Your task to perform on an android device: Open privacy settings Image 0: 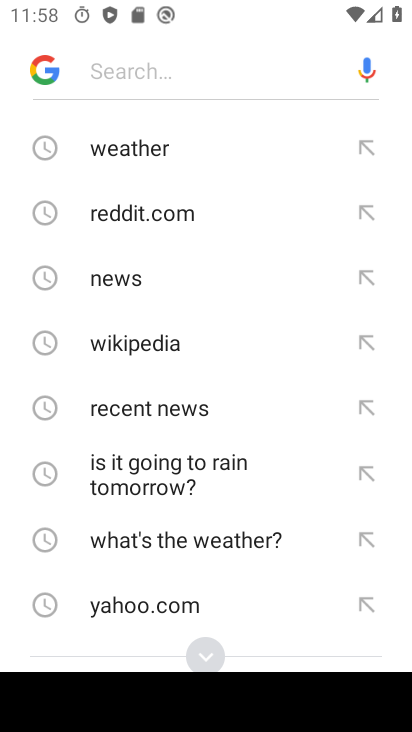
Step 0: press home button
Your task to perform on an android device: Open privacy settings Image 1: 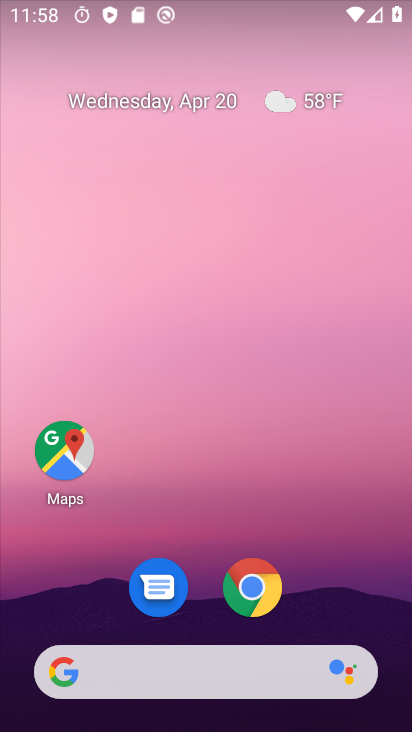
Step 1: drag from (204, 598) to (276, 0)
Your task to perform on an android device: Open privacy settings Image 2: 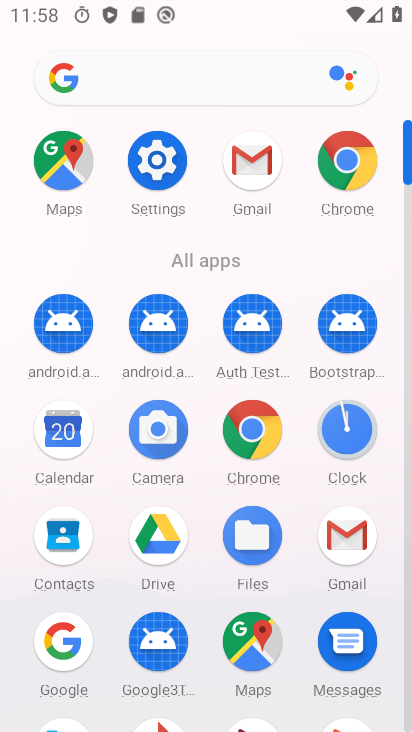
Step 2: click (161, 161)
Your task to perform on an android device: Open privacy settings Image 3: 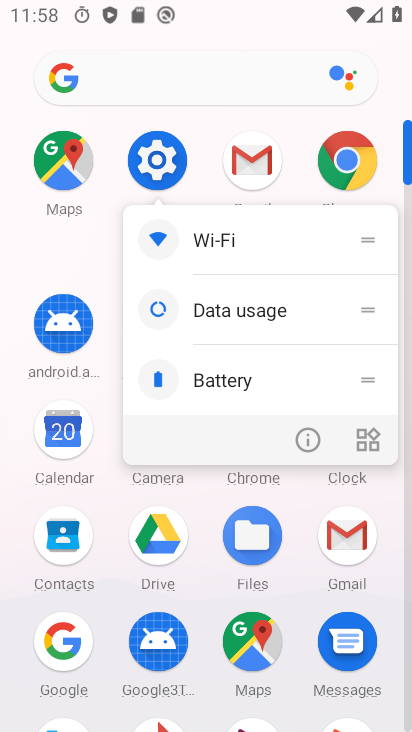
Step 3: click (167, 176)
Your task to perform on an android device: Open privacy settings Image 4: 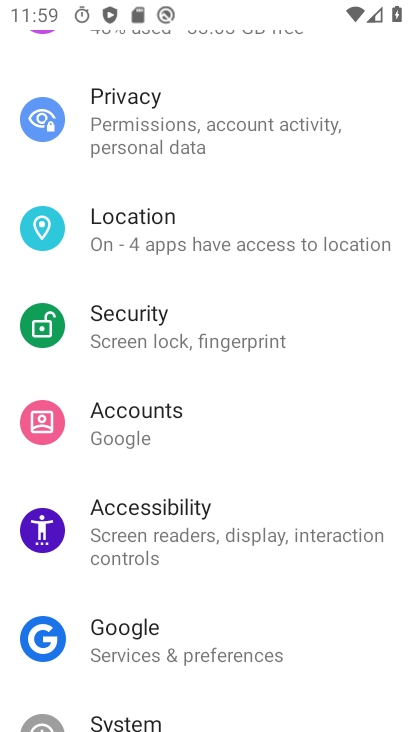
Step 4: click (166, 138)
Your task to perform on an android device: Open privacy settings Image 5: 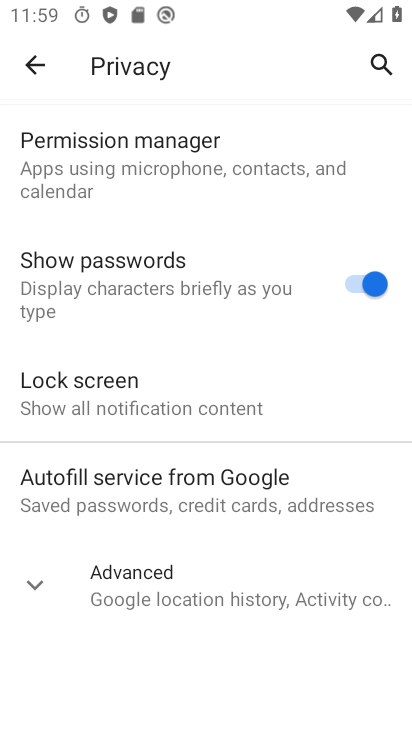
Step 5: task complete